Your task to perform on an android device: Set the phone to "Do not disturb". Image 0: 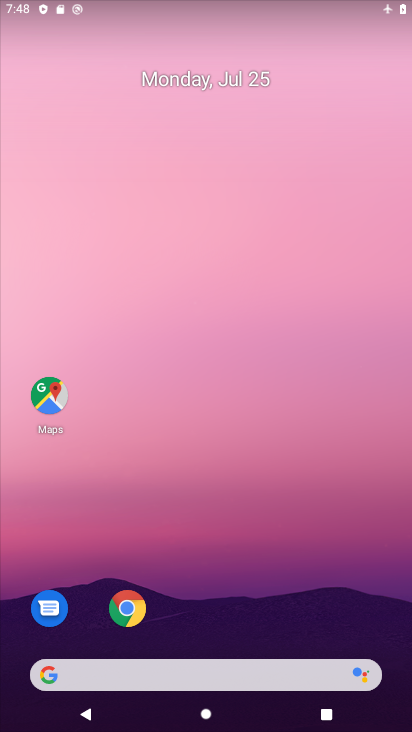
Step 0: drag from (356, 629) to (239, 629)
Your task to perform on an android device: Set the phone to "Do not disturb". Image 1: 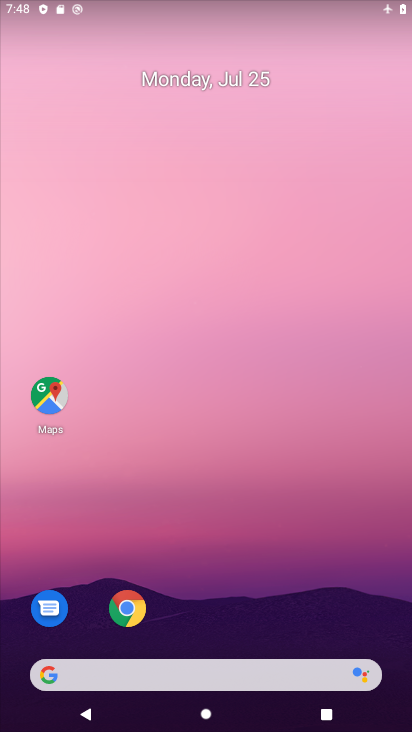
Step 1: drag from (204, 9) to (226, 529)
Your task to perform on an android device: Set the phone to "Do not disturb". Image 2: 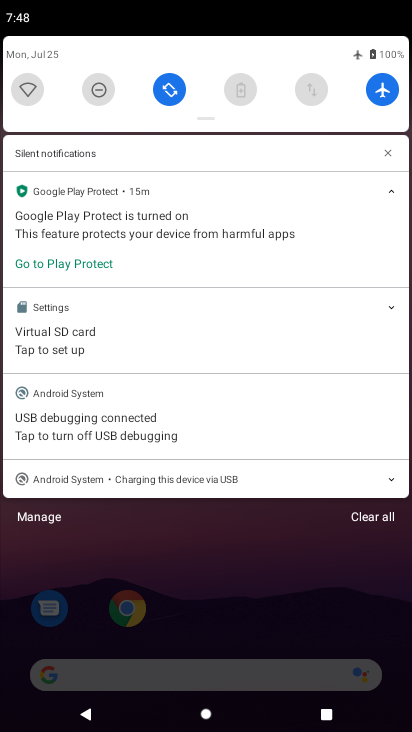
Step 2: click (97, 82)
Your task to perform on an android device: Set the phone to "Do not disturb". Image 3: 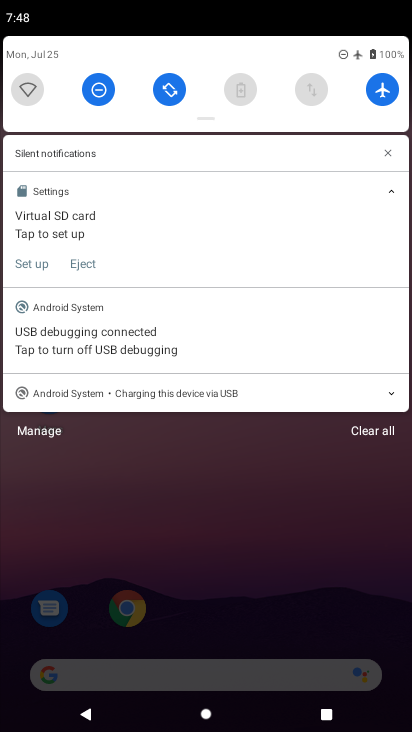
Step 3: task complete